Your task to perform on an android device: turn notification dots on Image 0: 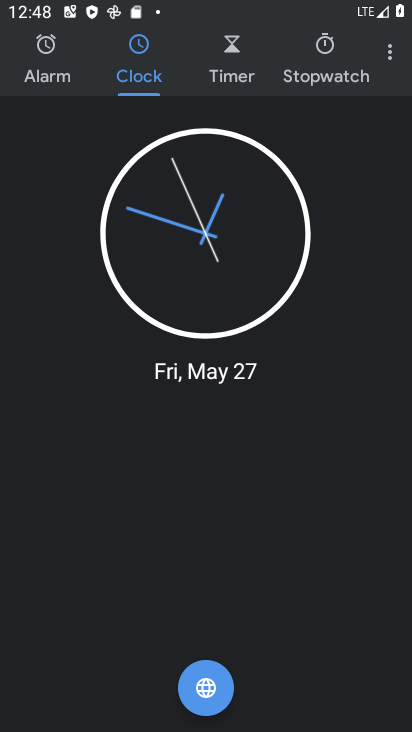
Step 0: press home button
Your task to perform on an android device: turn notification dots on Image 1: 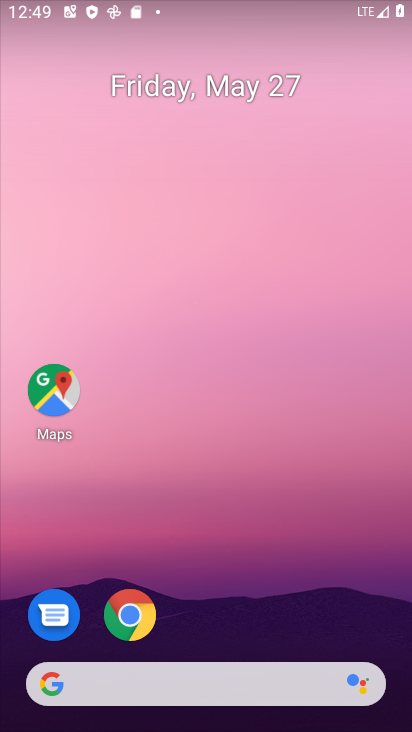
Step 1: drag from (193, 670) to (269, 19)
Your task to perform on an android device: turn notification dots on Image 2: 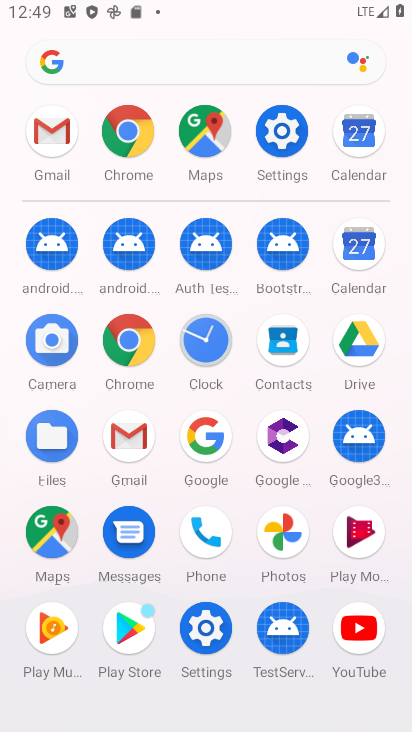
Step 2: click (278, 142)
Your task to perform on an android device: turn notification dots on Image 3: 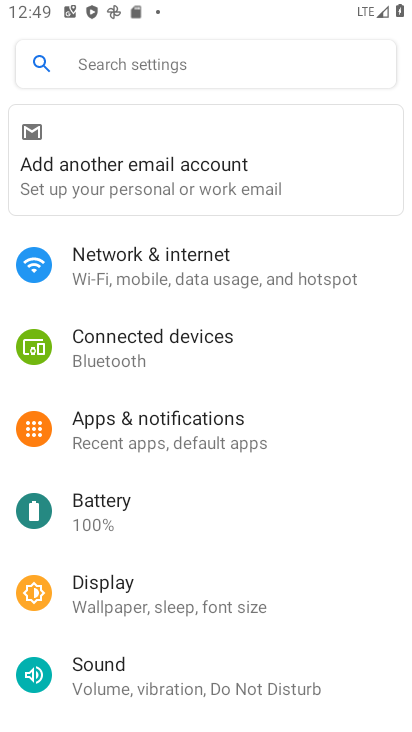
Step 3: click (93, 416)
Your task to perform on an android device: turn notification dots on Image 4: 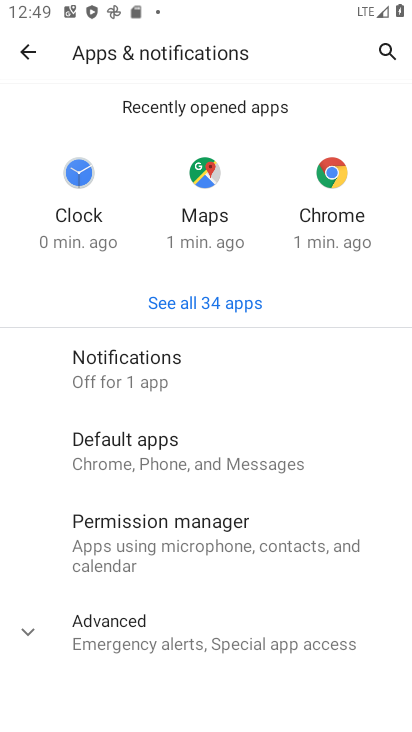
Step 4: click (221, 374)
Your task to perform on an android device: turn notification dots on Image 5: 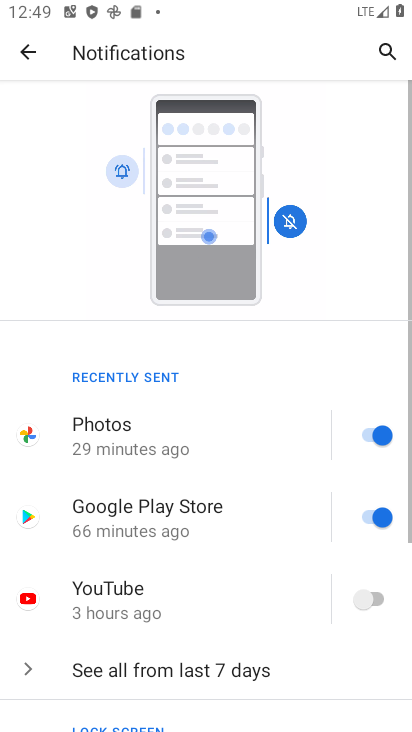
Step 5: drag from (225, 671) to (296, 230)
Your task to perform on an android device: turn notification dots on Image 6: 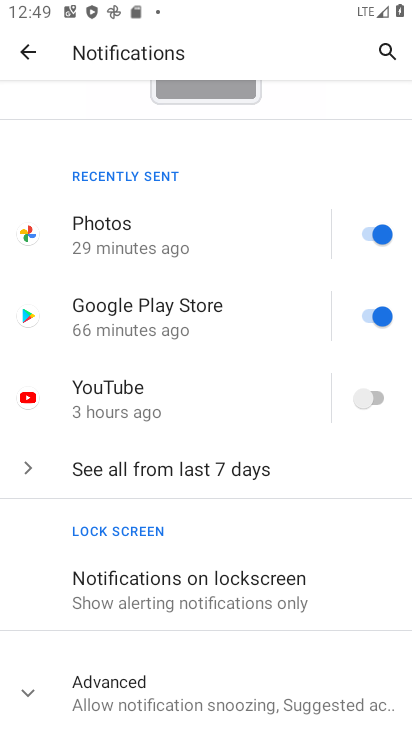
Step 6: click (248, 684)
Your task to perform on an android device: turn notification dots on Image 7: 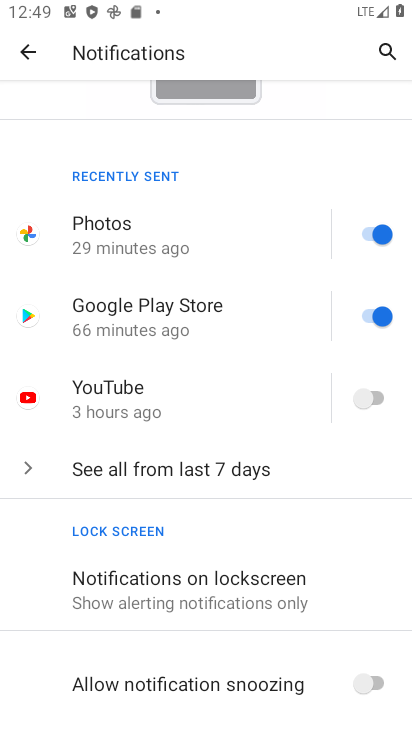
Step 7: task complete